Your task to perform on an android device: Go to Yahoo.com Image 0: 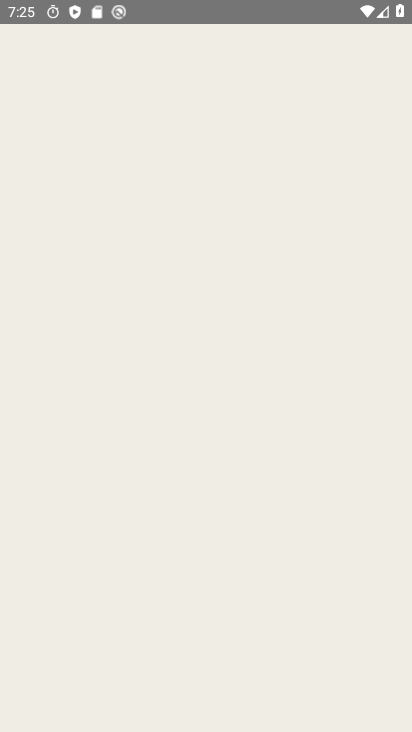
Step 0: drag from (269, 619) to (308, 96)
Your task to perform on an android device: Go to Yahoo.com Image 1: 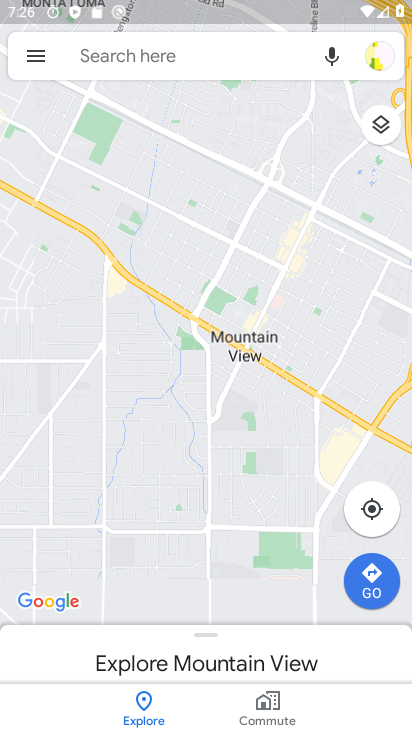
Step 1: press home button
Your task to perform on an android device: Go to Yahoo.com Image 2: 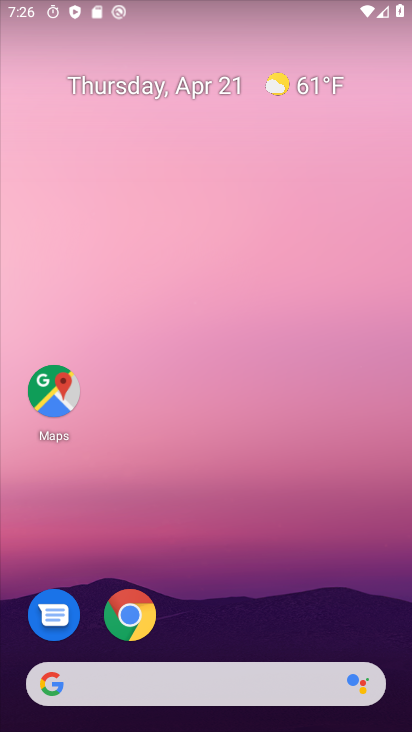
Step 2: drag from (182, 596) to (183, 109)
Your task to perform on an android device: Go to Yahoo.com Image 3: 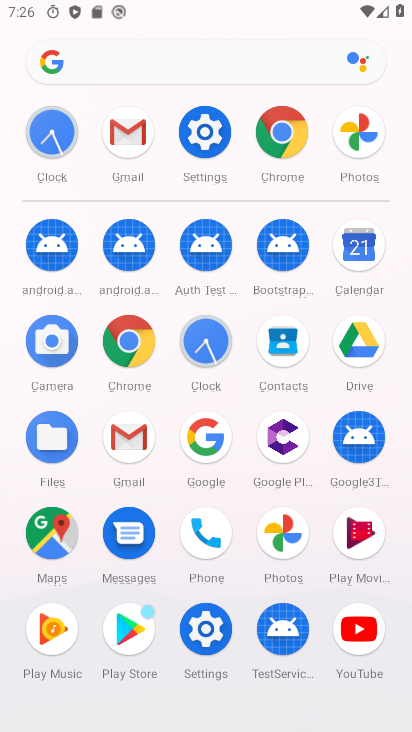
Step 3: click (131, 349)
Your task to perform on an android device: Go to Yahoo.com Image 4: 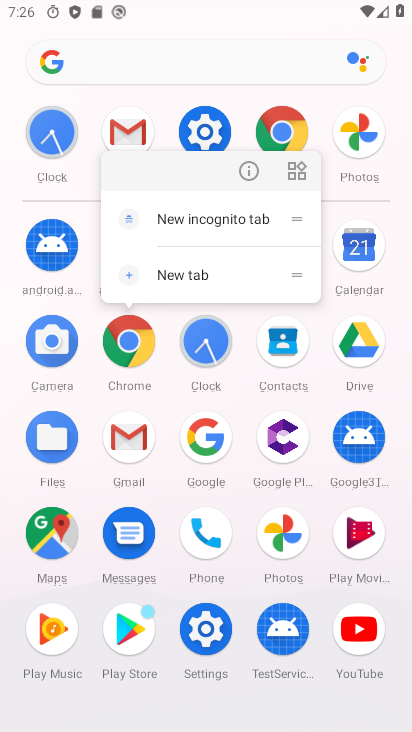
Step 4: click (242, 176)
Your task to perform on an android device: Go to Yahoo.com Image 5: 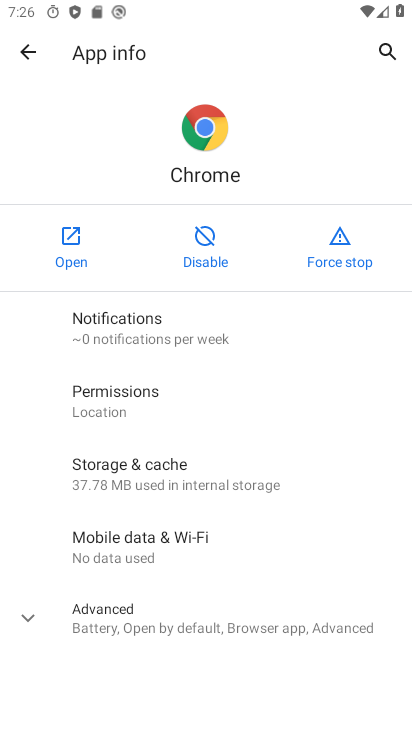
Step 5: click (74, 236)
Your task to perform on an android device: Go to Yahoo.com Image 6: 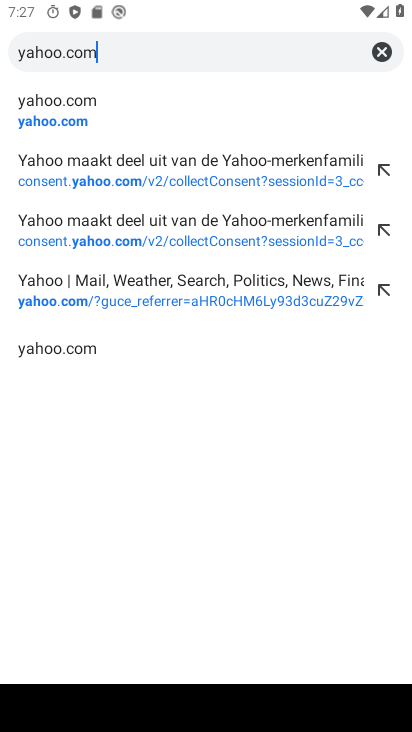
Step 6: click (78, 109)
Your task to perform on an android device: Go to Yahoo.com Image 7: 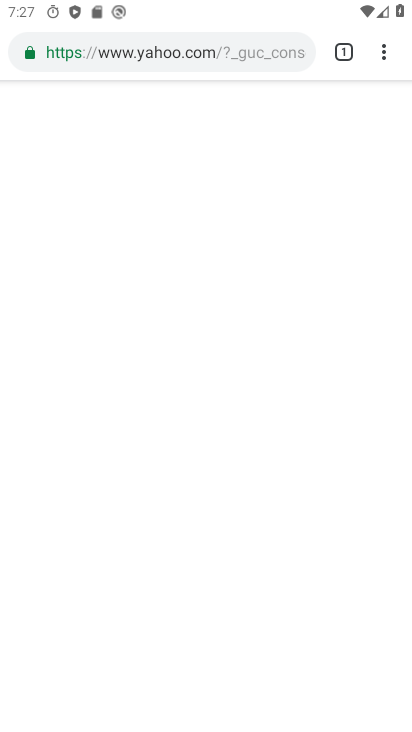
Step 7: task complete